Your task to perform on an android device: Is it going to rain this weekend? Image 0: 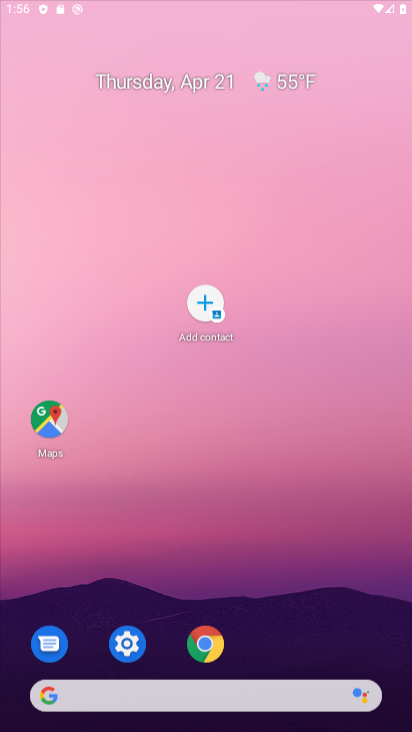
Step 0: click (232, 283)
Your task to perform on an android device: Is it going to rain this weekend? Image 1: 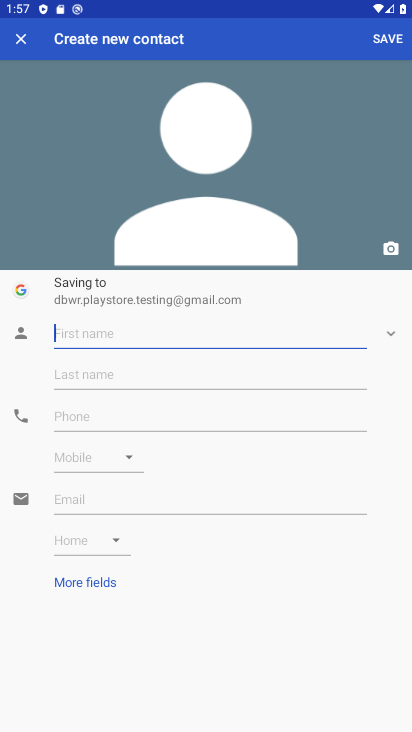
Step 1: press home button
Your task to perform on an android device: Is it going to rain this weekend? Image 2: 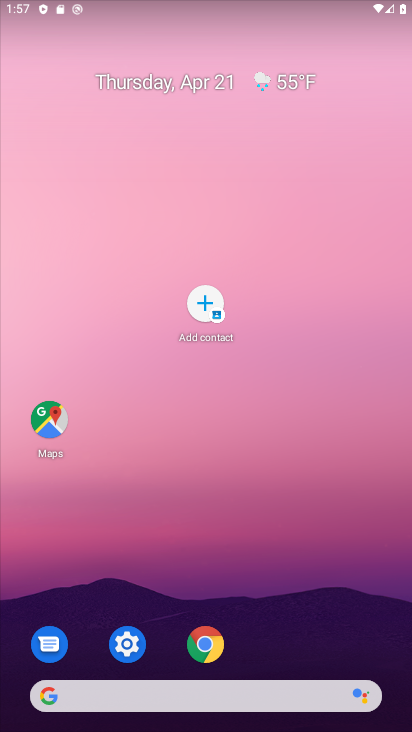
Step 2: drag from (231, 421) to (391, 425)
Your task to perform on an android device: Is it going to rain this weekend? Image 3: 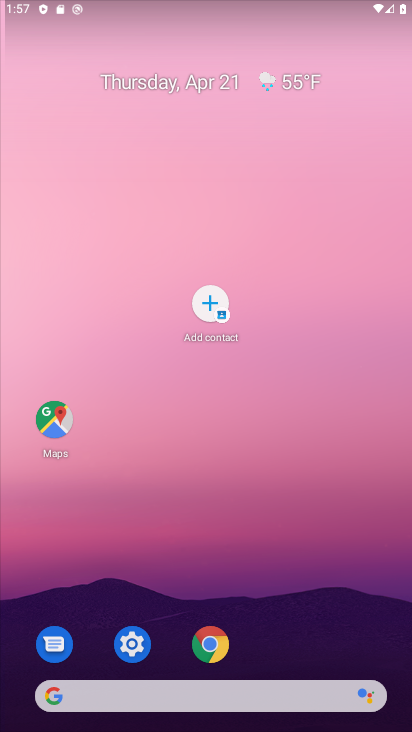
Step 3: drag from (34, 292) to (331, 422)
Your task to perform on an android device: Is it going to rain this weekend? Image 4: 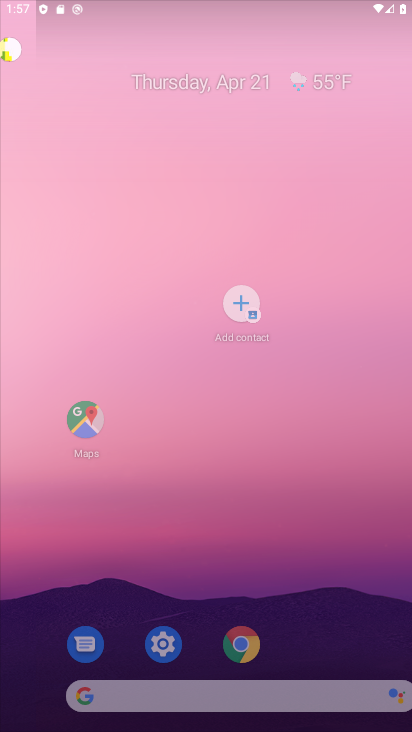
Step 4: drag from (72, 300) to (374, 404)
Your task to perform on an android device: Is it going to rain this weekend? Image 5: 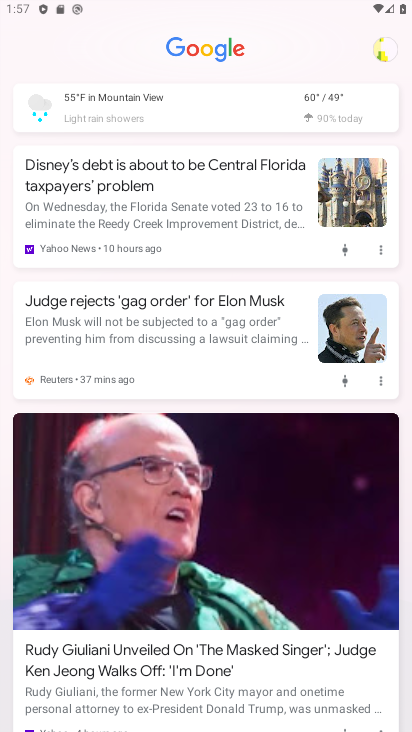
Step 5: click (303, 108)
Your task to perform on an android device: Is it going to rain this weekend? Image 6: 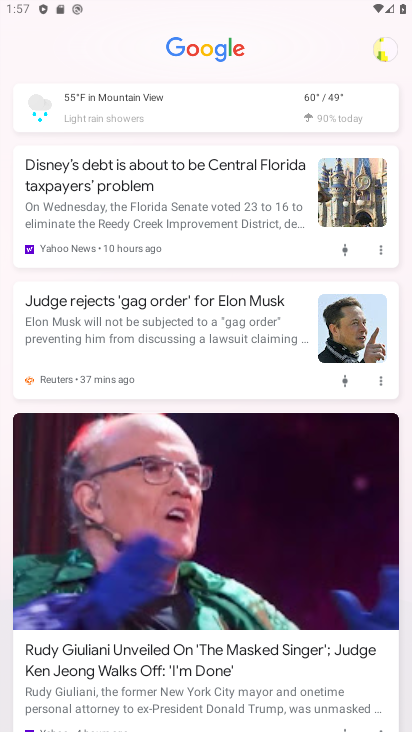
Step 6: click (303, 108)
Your task to perform on an android device: Is it going to rain this weekend? Image 7: 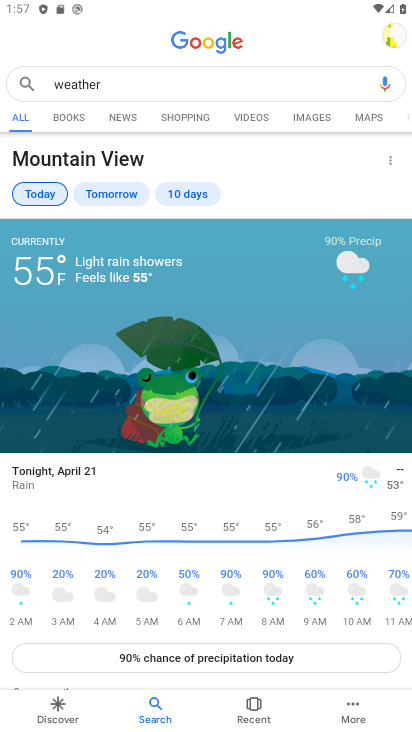
Step 7: task complete